Your task to perform on an android device: Open Yahoo.com Image 0: 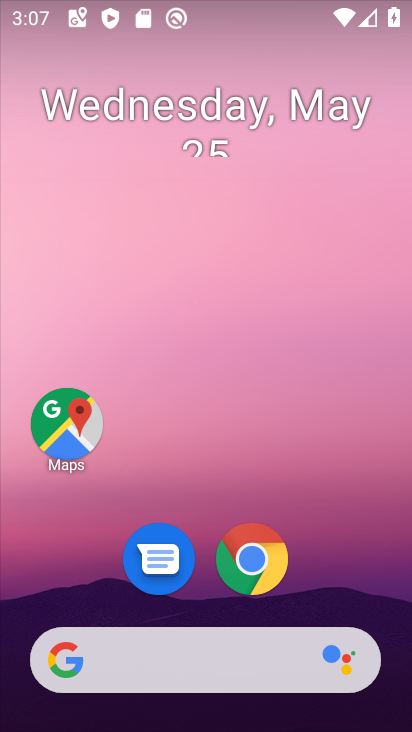
Step 0: click (410, 602)
Your task to perform on an android device: Open Yahoo.com Image 1: 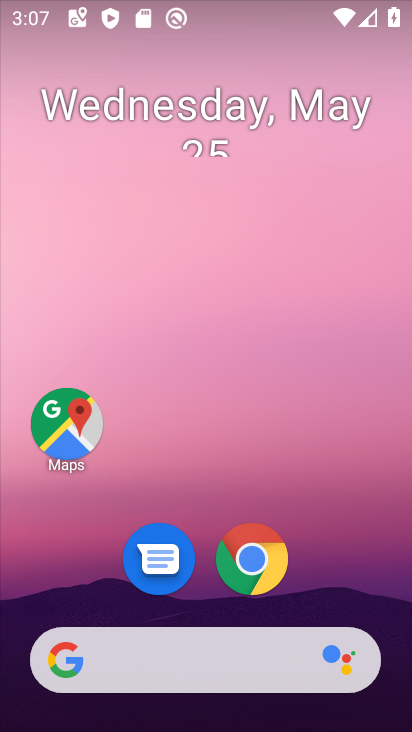
Step 1: click (250, 554)
Your task to perform on an android device: Open Yahoo.com Image 2: 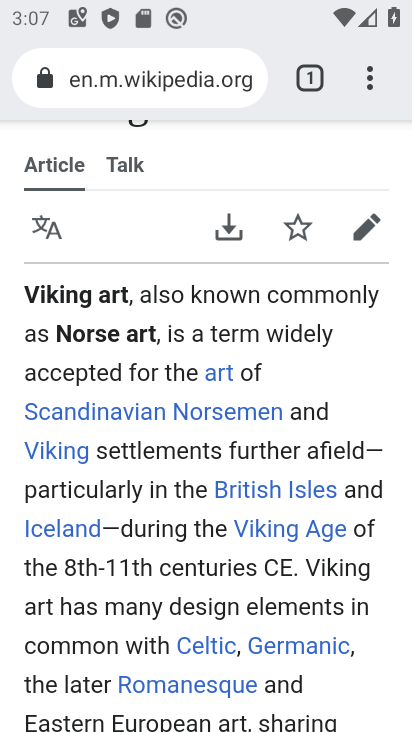
Step 2: click (312, 69)
Your task to perform on an android device: Open Yahoo.com Image 3: 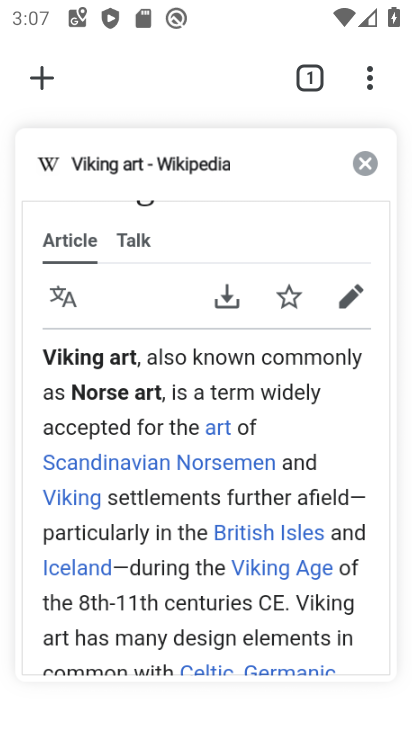
Step 3: click (43, 78)
Your task to perform on an android device: Open Yahoo.com Image 4: 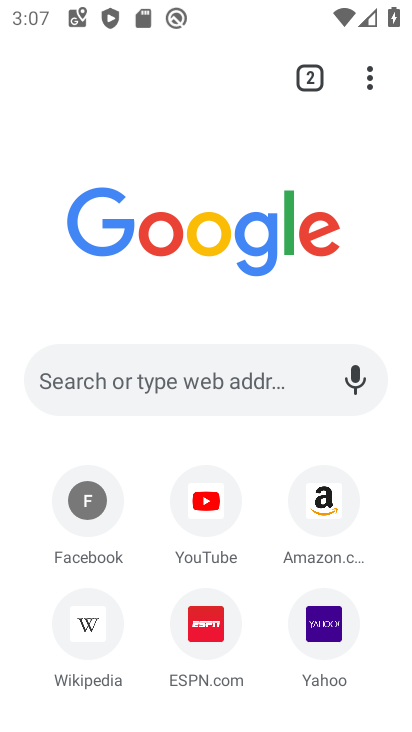
Step 4: click (325, 625)
Your task to perform on an android device: Open Yahoo.com Image 5: 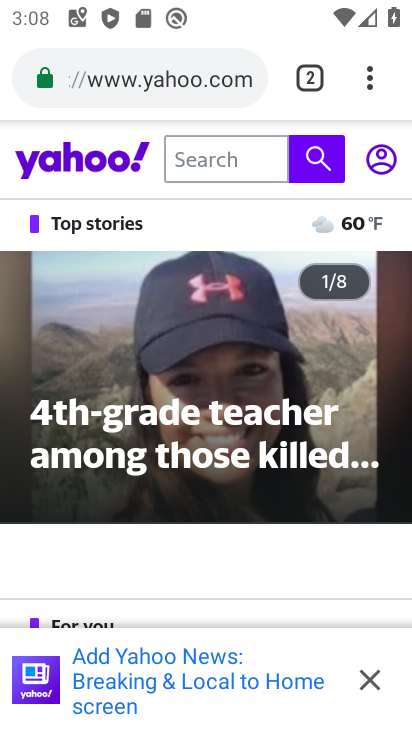
Step 5: click (368, 679)
Your task to perform on an android device: Open Yahoo.com Image 6: 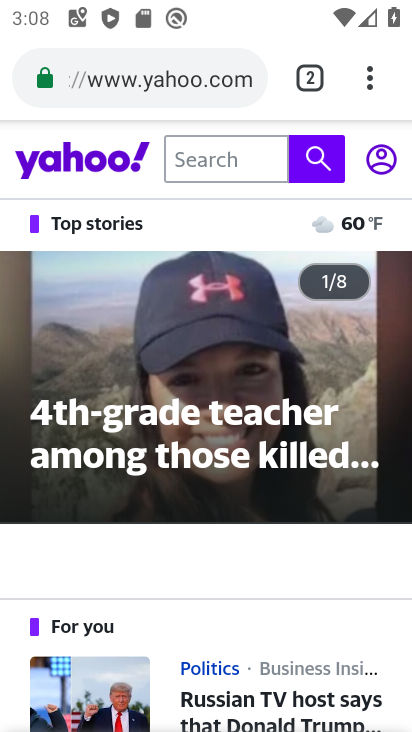
Step 6: task complete